Your task to perform on an android device: toggle improve location accuracy Image 0: 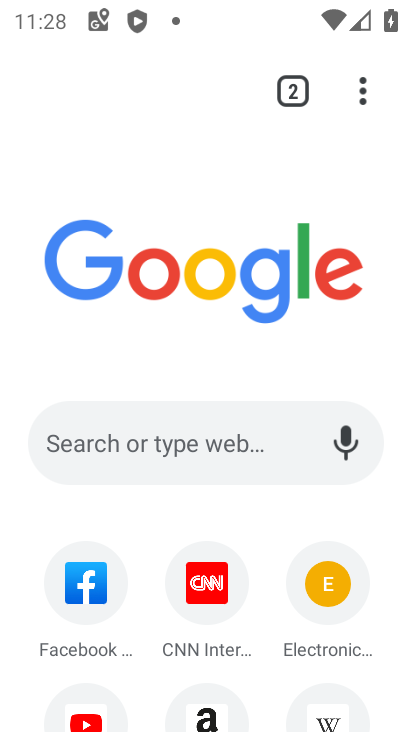
Step 0: drag from (243, 668) to (210, 163)
Your task to perform on an android device: toggle improve location accuracy Image 1: 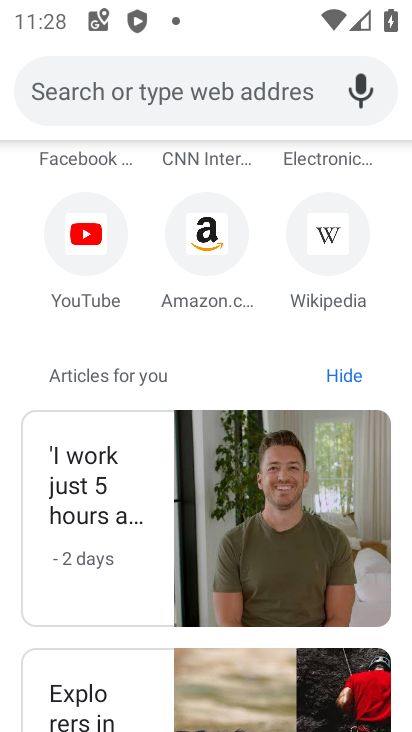
Step 1: press back button
Your task to perform on an android device: toggle improve location accuracy Image 2: 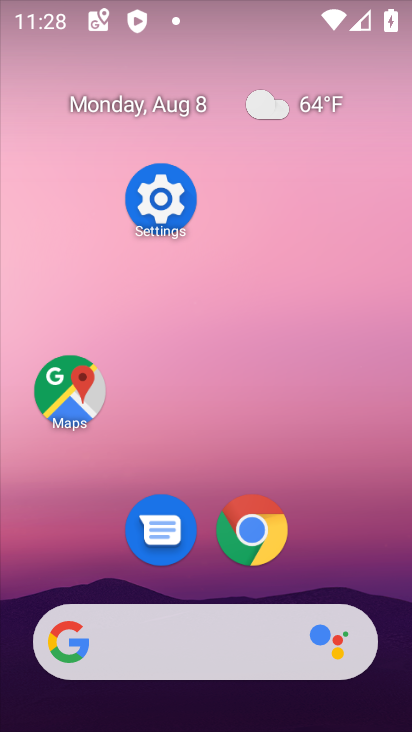
Step 2: drag from (169, 92) to (226, 16)
Your task to perform on an android device: toggle improve location accuracy Image 3: 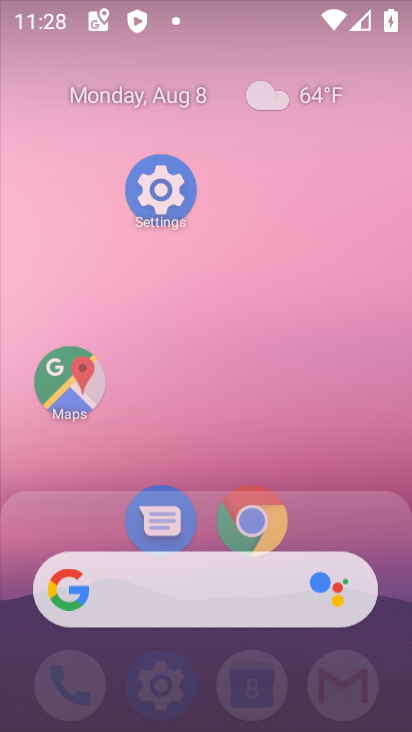
Step 3: drag from (212, 502) to (217, 22)
Your task to perform on an android device: toggle improve location accuracy Image 4: 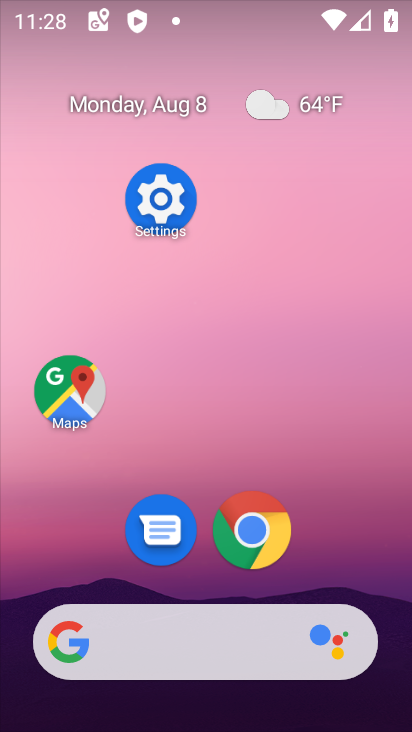
Step 4: drag from (231, 443) to (230, 3)
Your task to perform on an android device: toggle improve location accuracy Image 5: 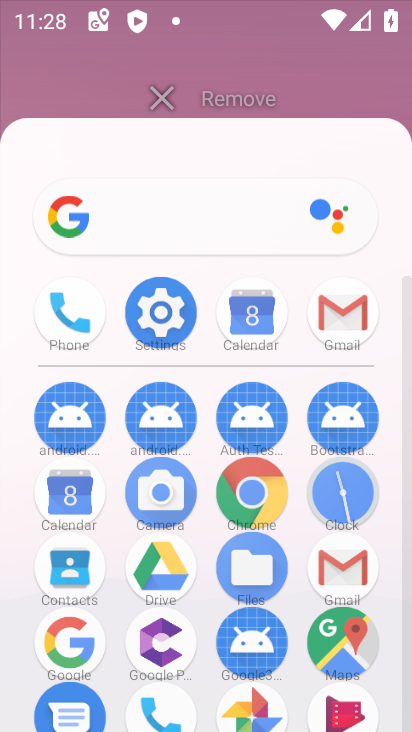
Step 5: drag from (226, 473) to (189, 50)
Your task to perform on an android device: toggle improve location accuracy Image 6: 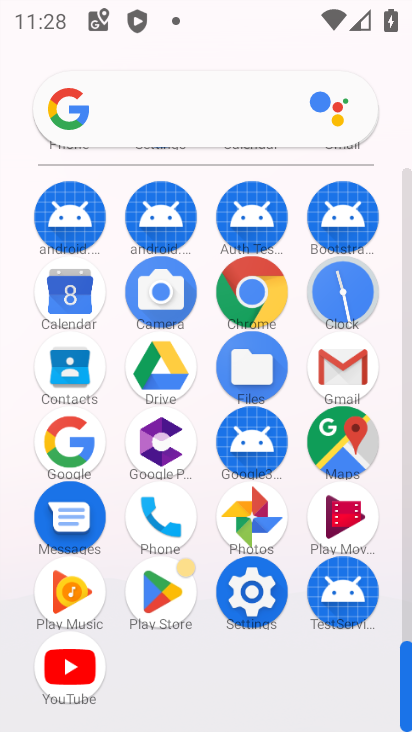
Step 6: drag from (161, 410) to (116, 35)
Your task to perform on an android device: toggle improve location accuracy Image 7: 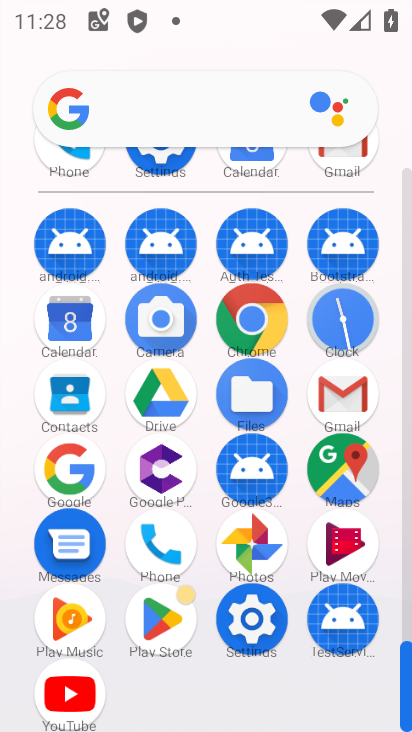
Step 7: click (237, 623)
Your task to perform on an android device: toggle improve location accuracy Image 8: 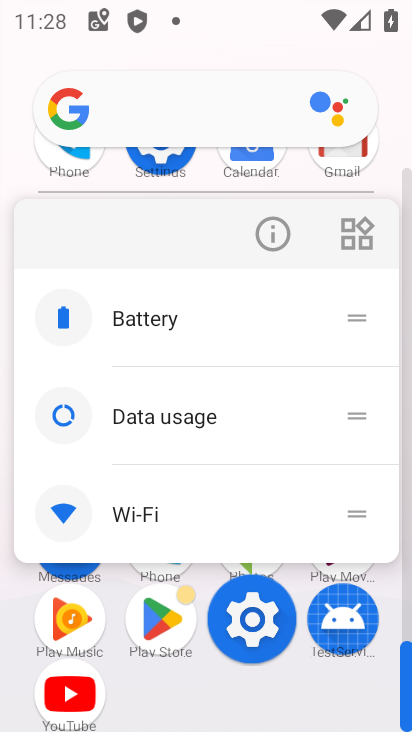
Step 8: click (252, 620)
Your task to perform on an android device: toggle improve location accuracy Image 9: 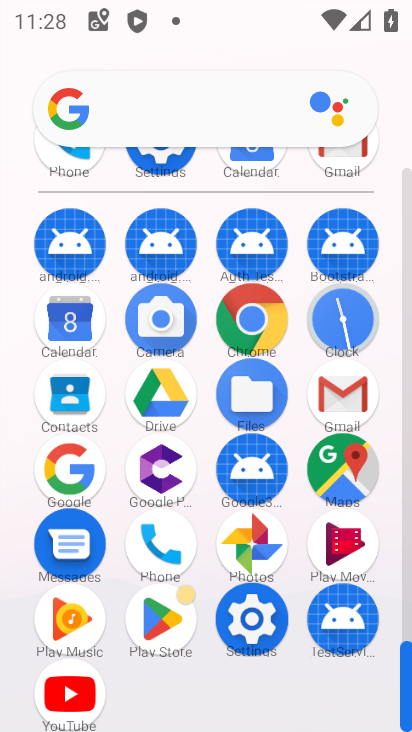
Step 9: click (252, 620)
Your task to perform on an android device: toggle improve location accuracy Image 10: 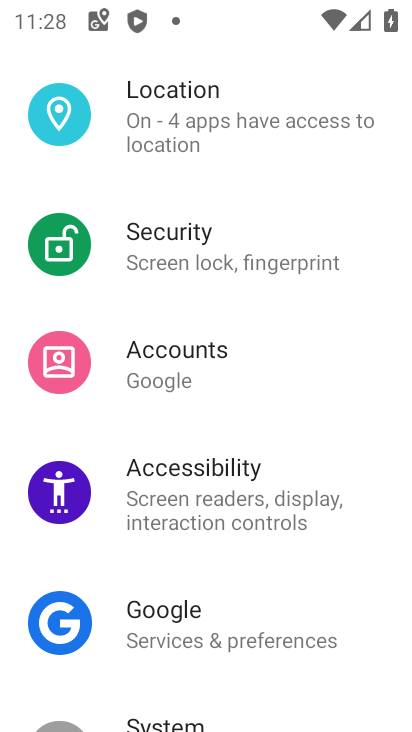
Step 10: click (174, 116)
Your task to perform on an android device: toggle improve location accuracy Image 11: 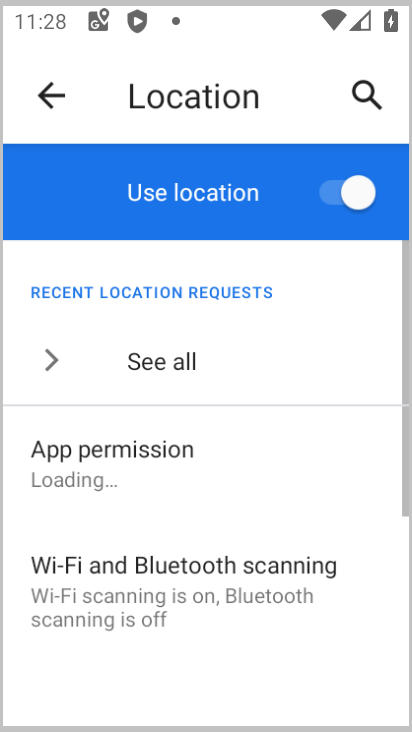
Step 11: click (175, 115)
Your task to perform on an android device: toggle improve location accuracy Image 12: 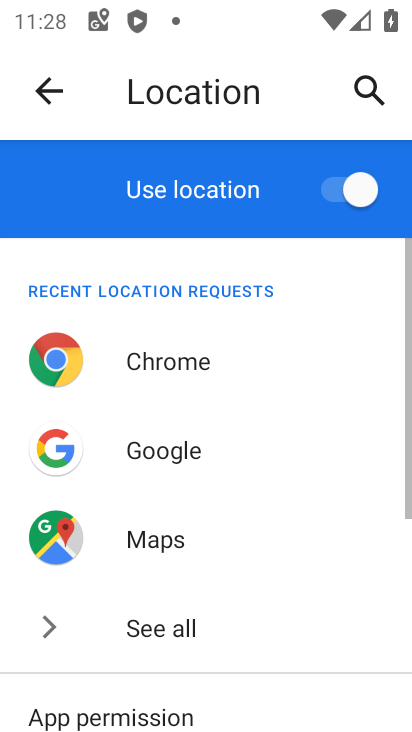
Step 12: drag from (242, 617) to (255, 151)
Your task to perform on an android device: toggle improve location accuracy Image 13: 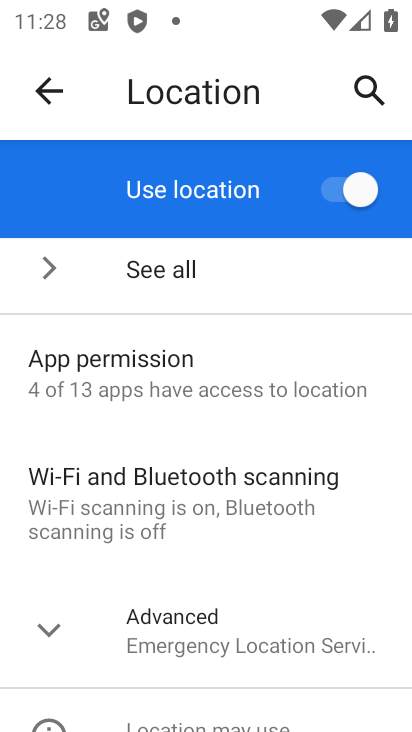
Step 13: click (186, 629)
Your task to perform on an android device: toggle improve location accuracy Image 14: 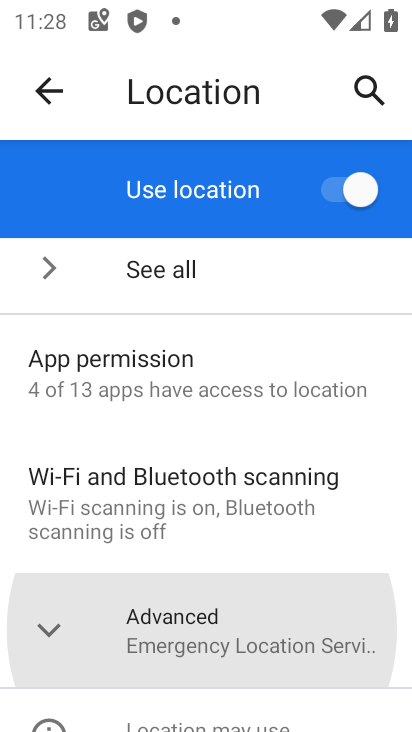
Step 14: click (186, 629)
Your task to perform on an android device: toggle improve location accuracy Image 15: 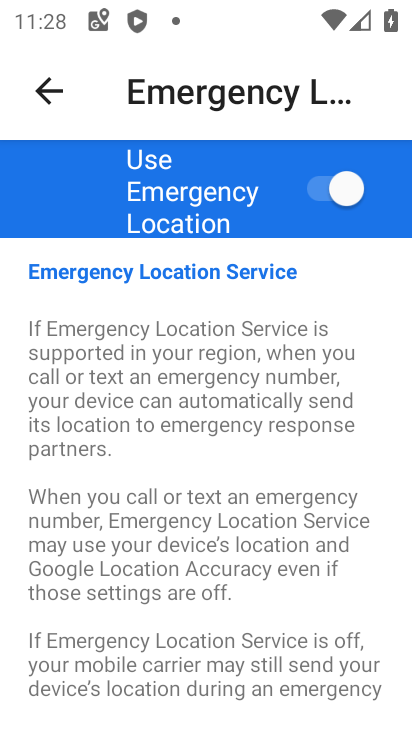
Step 15: click (344, 186)
Your task to perform on an android device: toggle improve location accuracy Image 16: 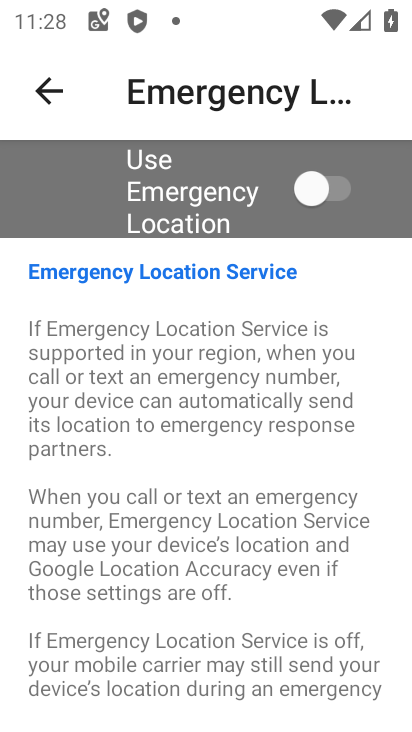
Step 16: task complete